Your task to perform on an android device: What's on my calendar tomorrow? Image 0: 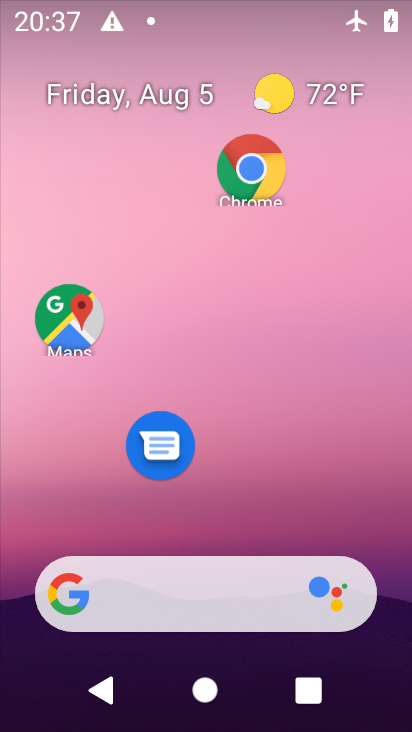
Step 0: drag from (201, 532) to (202, 157)
Your task to perform on an android device: What's on my calendar tomorrow? Image 1: 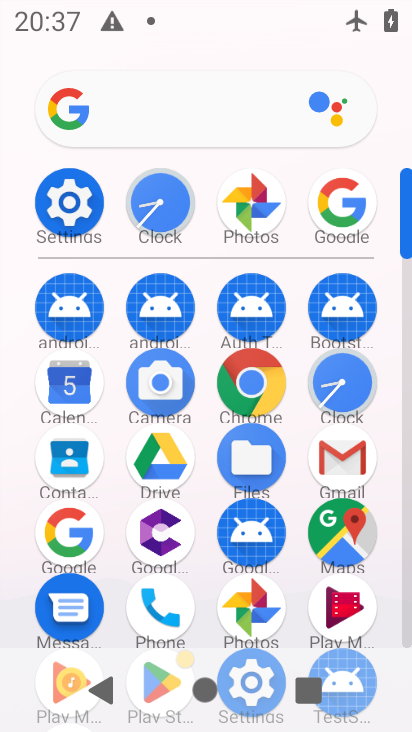
Step 1: click (66, 407)
Your task to perform on an android device: What's on my calendar tomorrow? Image 2: 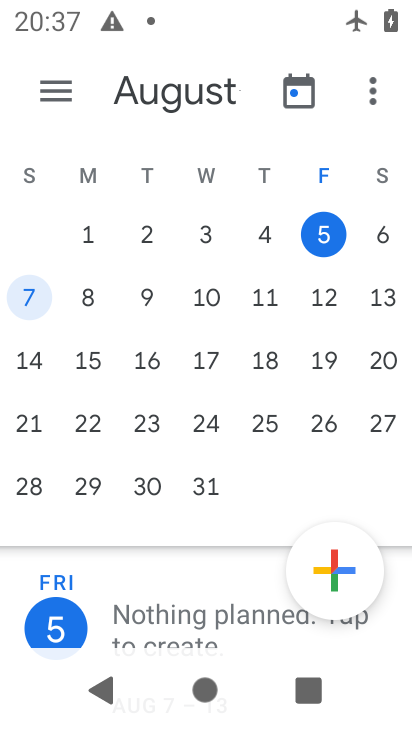
Step 2: click (361, 229)
Your task to perform on an android device: What's on my calendar tomorrow? Image 3: 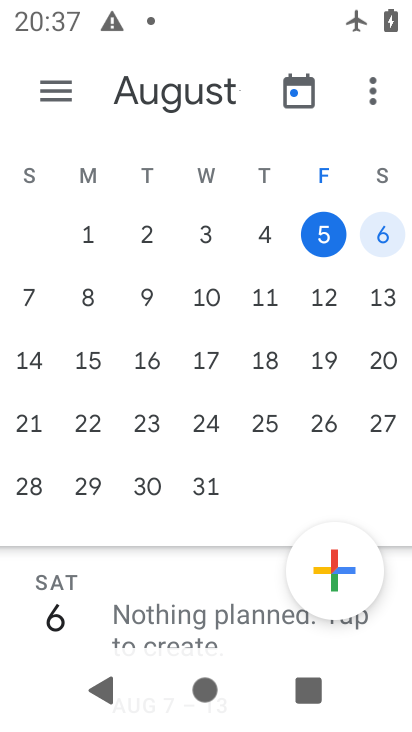
Step 3: task complete